Your task to perform on an android device: turn on bluetooth scan Image 0: 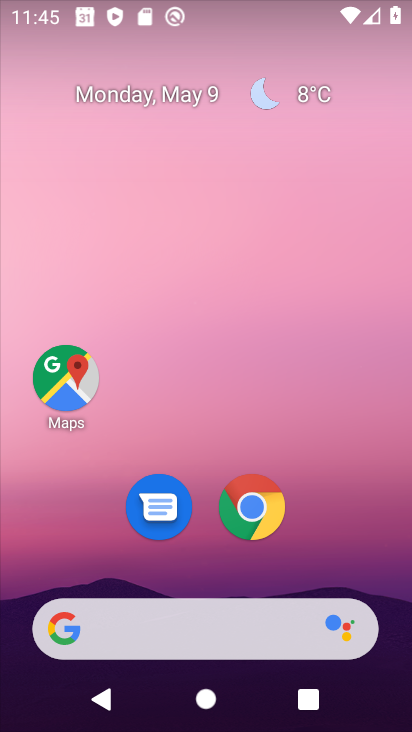
Step 0: drag from (320, 551) to (292, 2)
Your task to perform on an android device: turn on bluetooth scan Image 1: 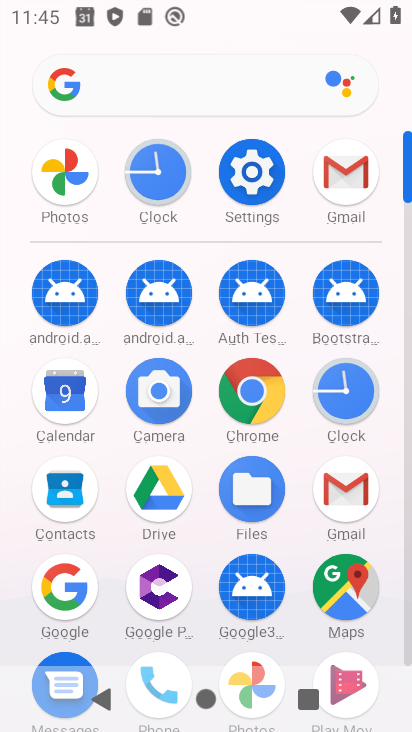
Step 1: click (257, 171)
Your task to perform on an android device: turn on bluetooth scan Image 2: 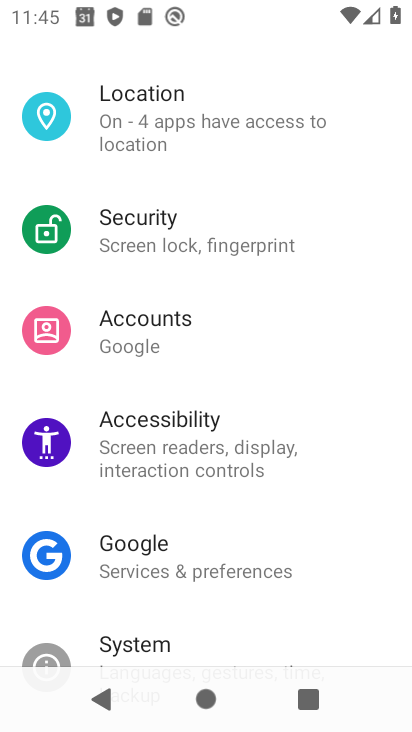
Step 2: drag from (263, 530) to (289, 626)
Your task to perform on an android device: turn on bluetooth scan Image 3: 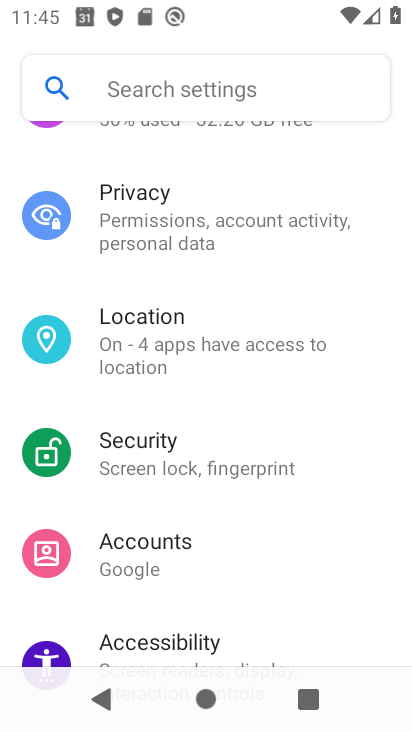
Step 3: click (213, 355)
Your task to perform on an android device: turn on bluetooth scan Image 4: 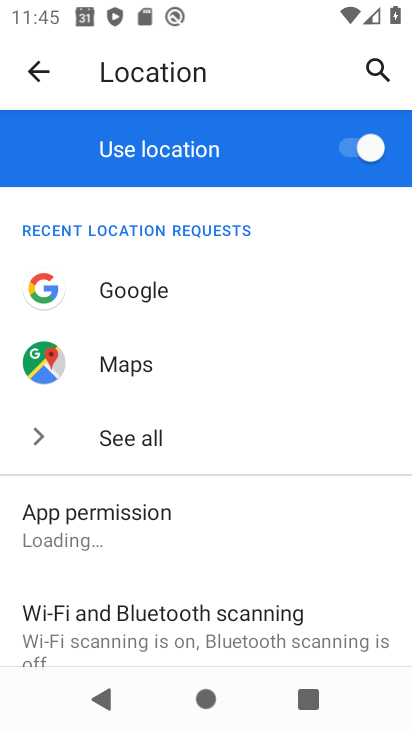
Step 4: click (264, 606)
Your task to perform on an android device: turn on bluetooth scan Image 5: 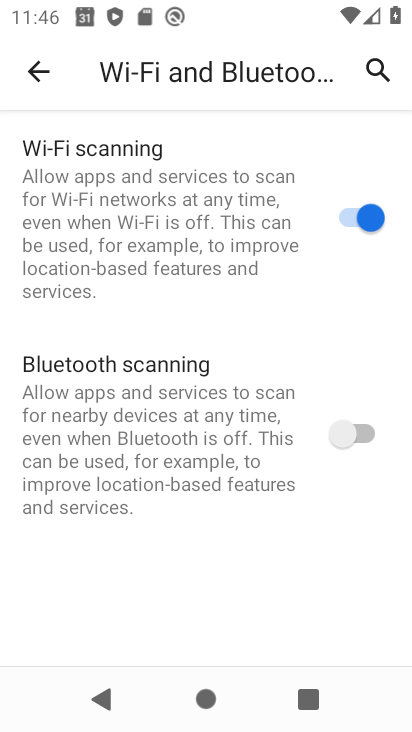
Step 5: click (361, 431)
Your task to perform on an android device: turn on bluetooth scan Image 6: 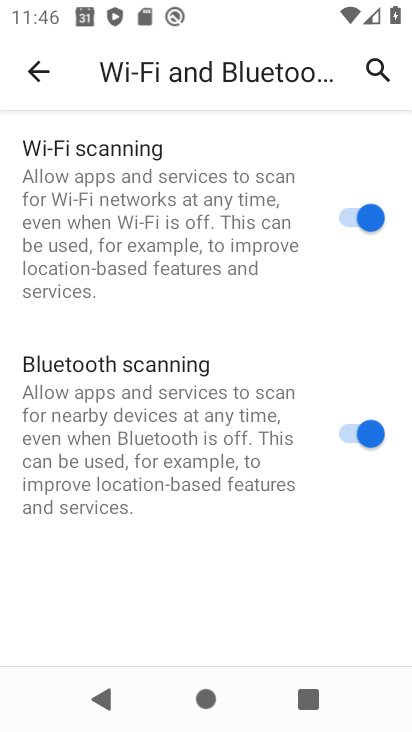
Step 6: task complete